Your task to perform on an android device: open device folders in google photos Image 0: 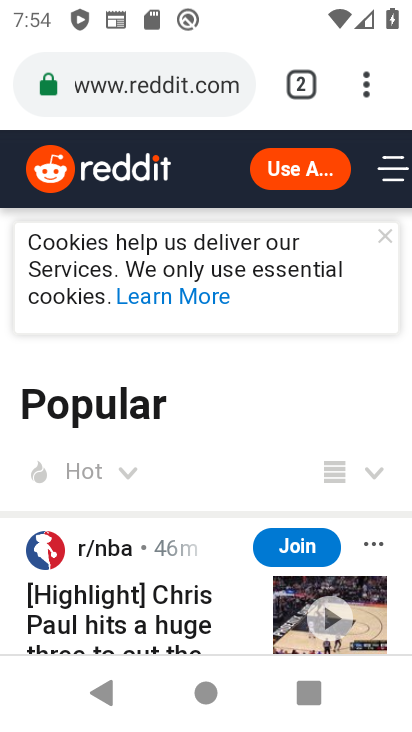
Step 0: press home button
Your task to perform on an android device: open device folders in google photos Image 1: 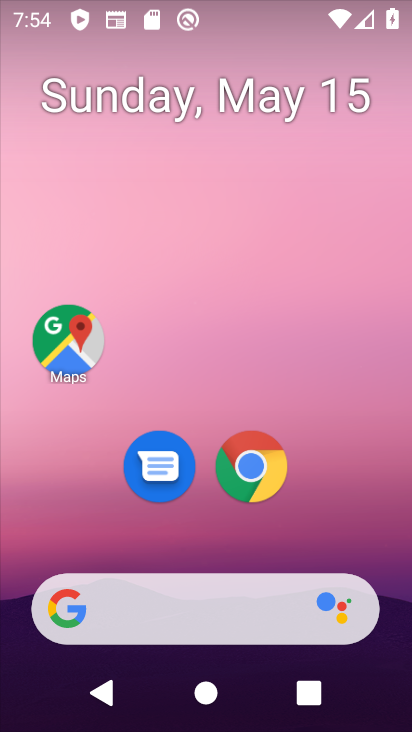
Step 1: drag from (198, 568) to (244, 33)
Your task to perform on an android device: open device folders in google photos Image 2: 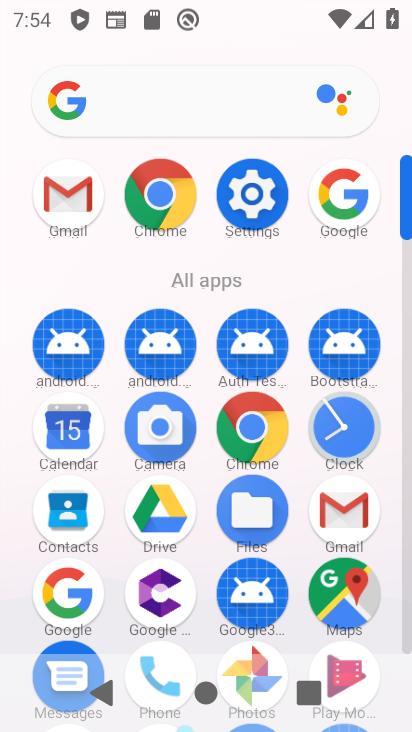
Step 2: drag from (212, 542) to (209, 191)
Your task to perform on an android device: open device folders in google photos Image 3: 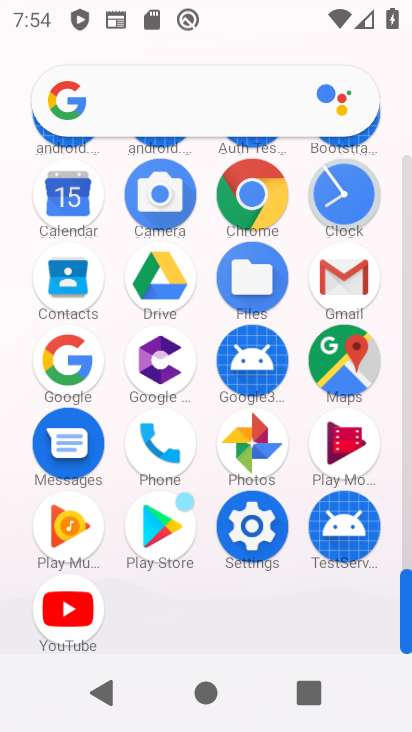
Step 3: click (249, 454)
Your task to perform on an android device: open device folders in google photos Image 4: 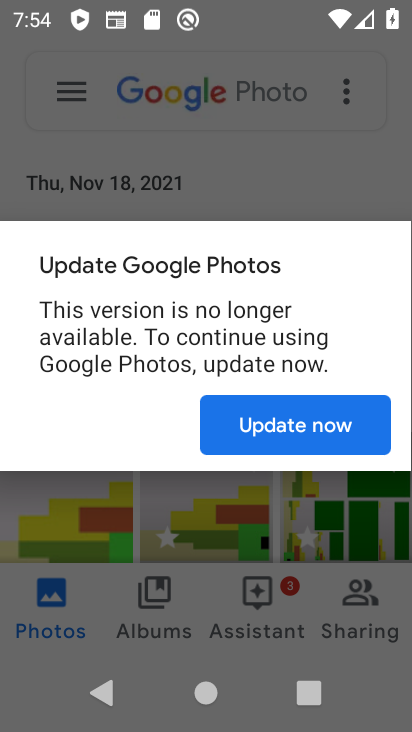
Step 4: click (279, 496)
Your task to perform on an android device: open device folders in google photos Image 5: 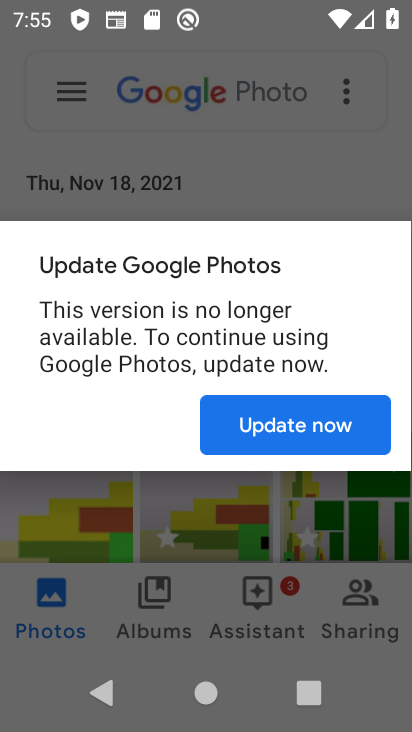
Step 5: click (292, 445)
Your task to perform on an android device: open device folders in google photos Image 6: 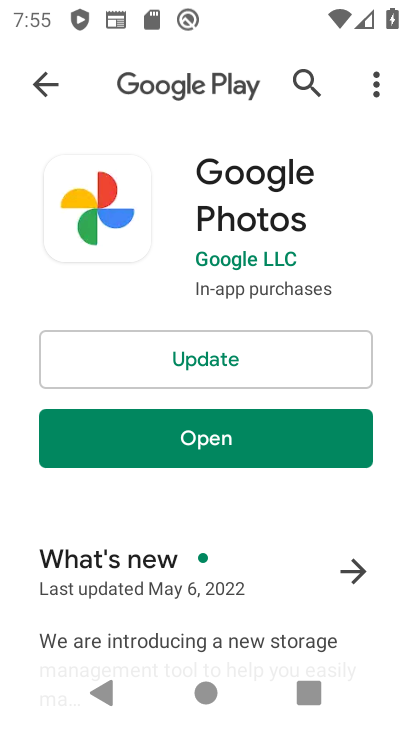
Step 6: click (212, 369)
Your task to perform on an android device: open device folders in google photos Image 7: 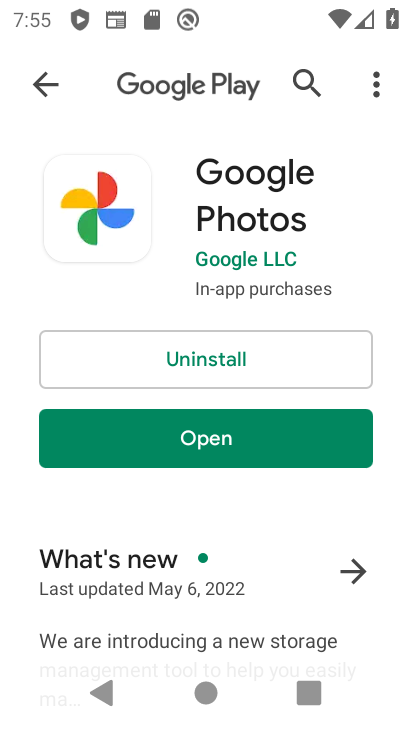
Step 7: click (196, 440)
Your task to perform on an android device: open device folders in google photos Image 8: 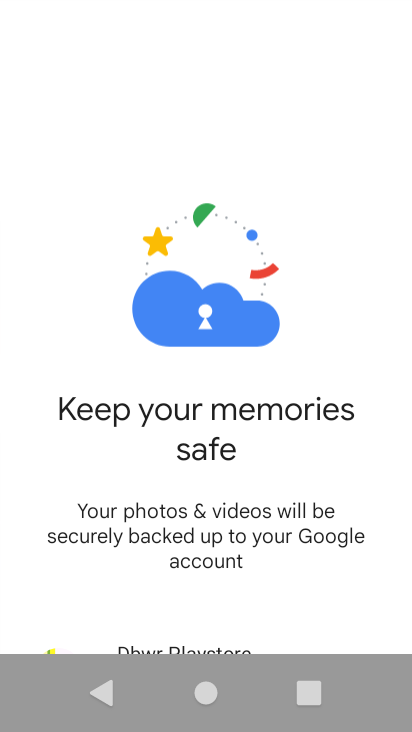
Step 8: click (119, 692)
Your task to perform on an android device: open device folders in google photos Image 9: 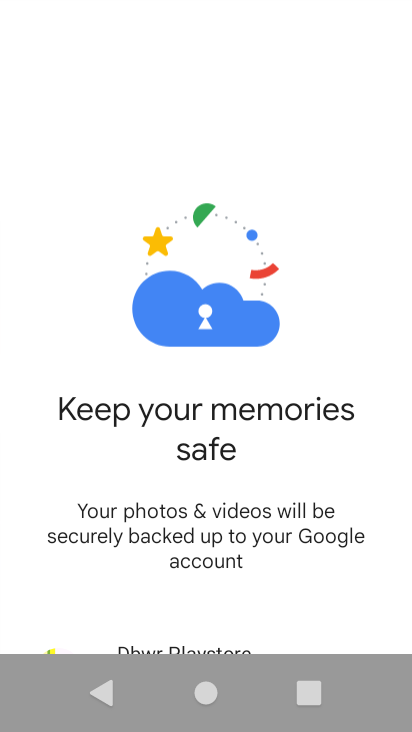
Step 9: click (148, 632)
Your task to perform on an android device: open device folders in google photos Image 10: 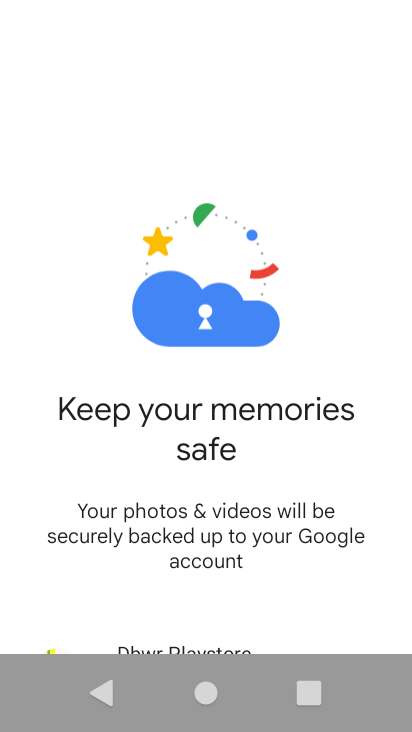
Step 10: drag from (148, 632) to (121, 279)
Your task to perform on an android device: open device folders in google photos Image 11: 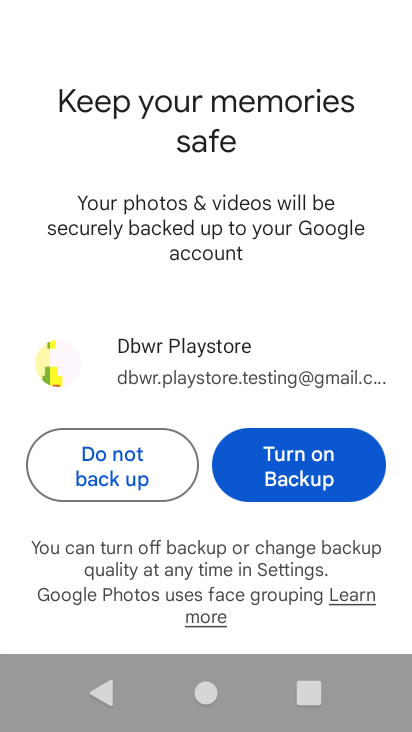
Step 11: click (299, 448)
Your task to perform on an android device: open device folders in google photos Image 12: 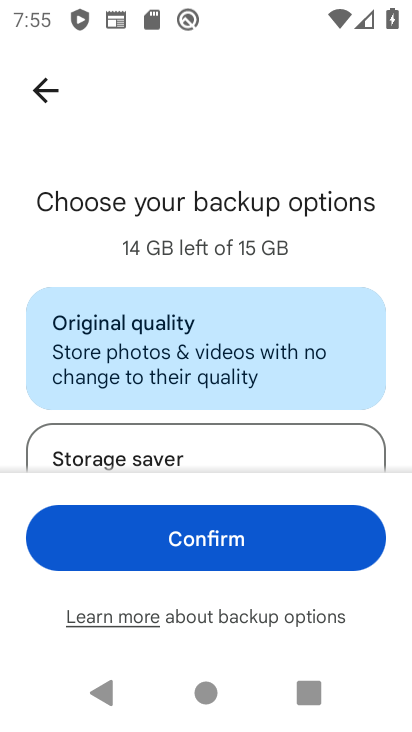
Step 12: click (266, 557)
Your task to perform on an android device: open device folders in google photos Image 13: 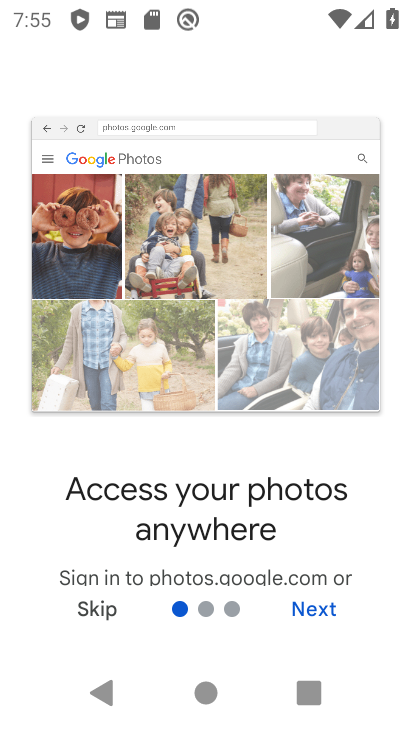
Step 13: click (90, 608)
Your task to perform on an android device: open device folders in google photos Image 14: 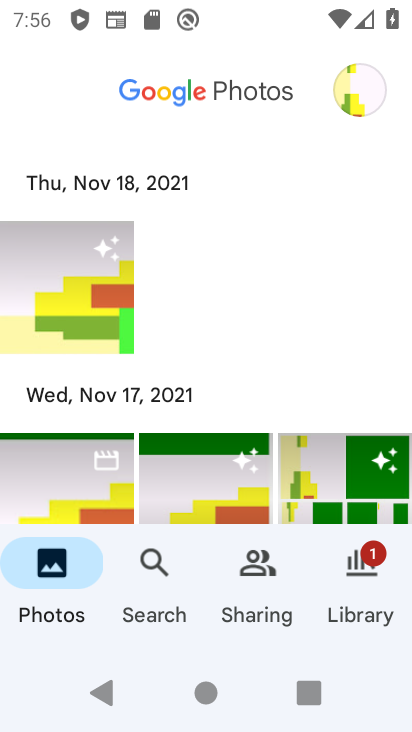
Step 14: click (339, 90)
Your task to perform on an android device: open device folders in google photos Image 15: 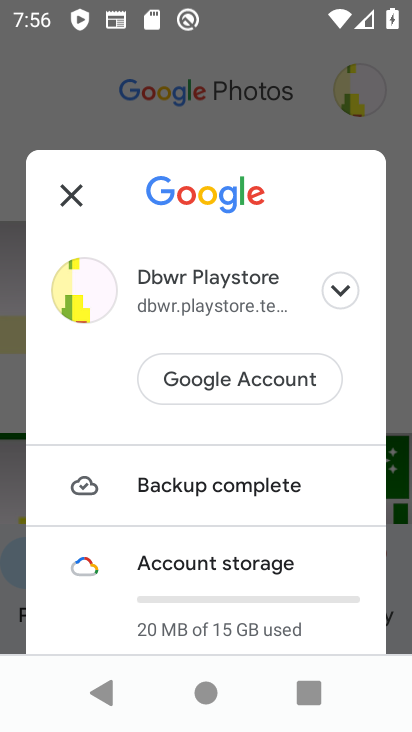
Step 15: click (261, 103)
Your task to perform on an android device: open device folders in google photos Image 16: 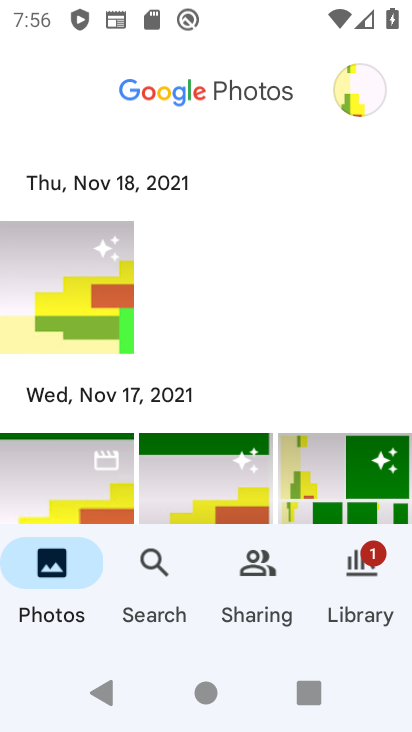
Step 16: task complete